Your task to perform on an android device: allow cookies in the chrome app Image 0: 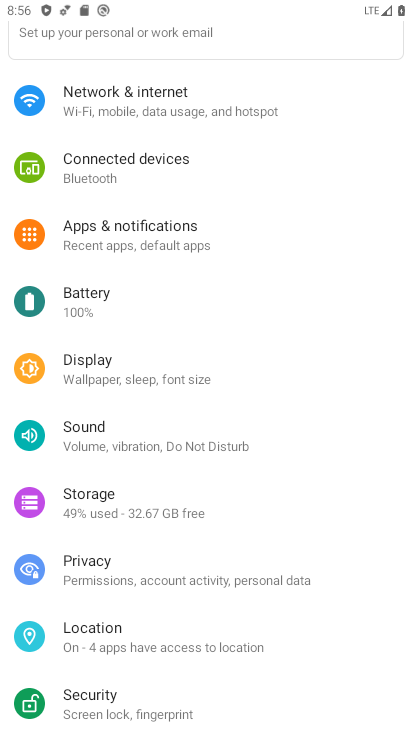
Step 0: press home button
Your task to perform on an android device: allow cookies in the chrome app Image 1: 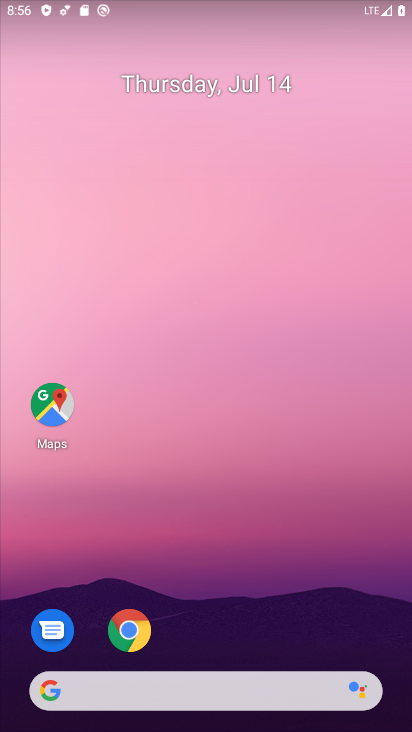
Step 1: click (133, 628)
Your task to perform on an android device: allow cookies in the chrome app Image 2: 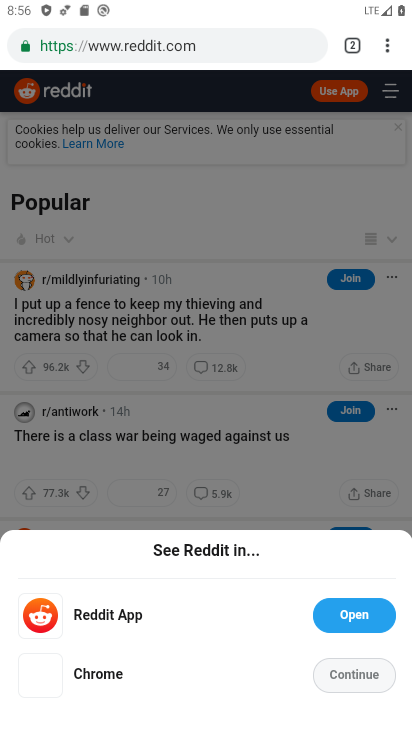
Step 2: click (380, 45)
Your task to perform on an android device: allow cookies in the chrome app Image 3: 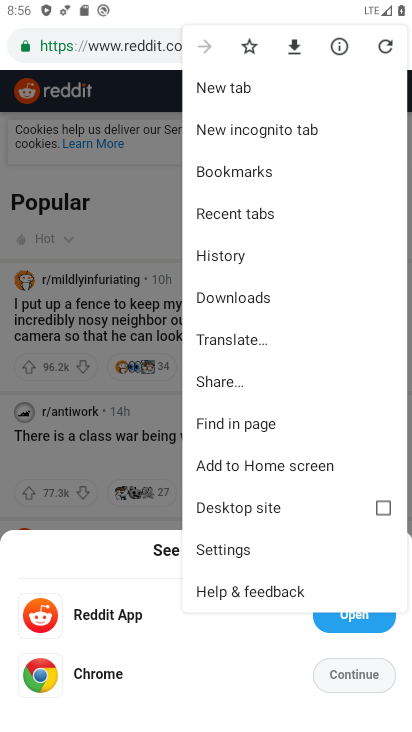
Step 3: click (237, 544)
Your task to perform on an android device: allow cookies in the chrome app Image 4: 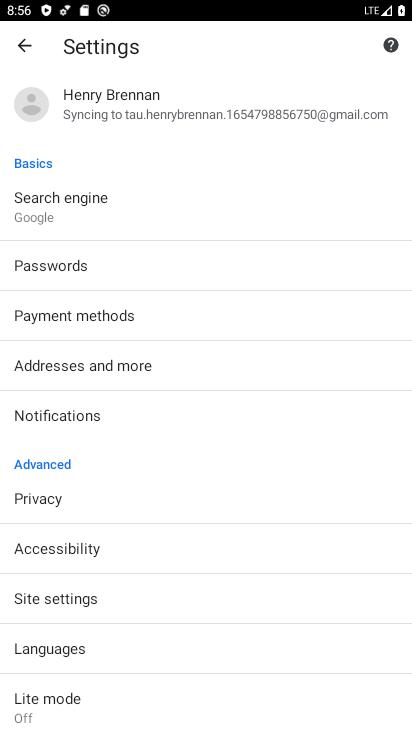
Step 4: click (67, 607)
Your task to perform on an android device: allow cookies in the chrome app Image 5: 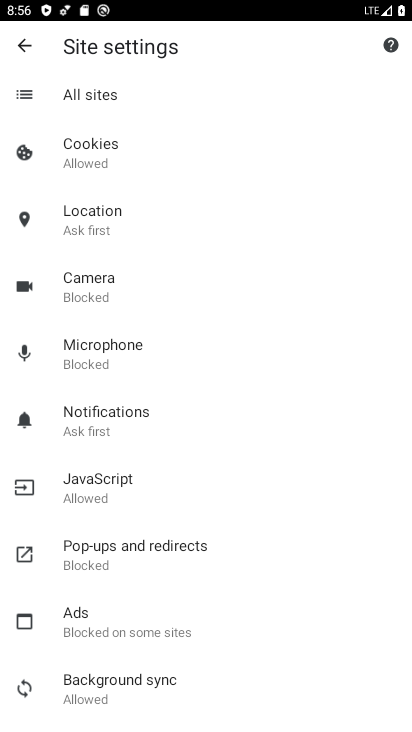
Step 5: click (126, 147)
Your task to perform on an android device: allow cookies in the chrome app Image 6: 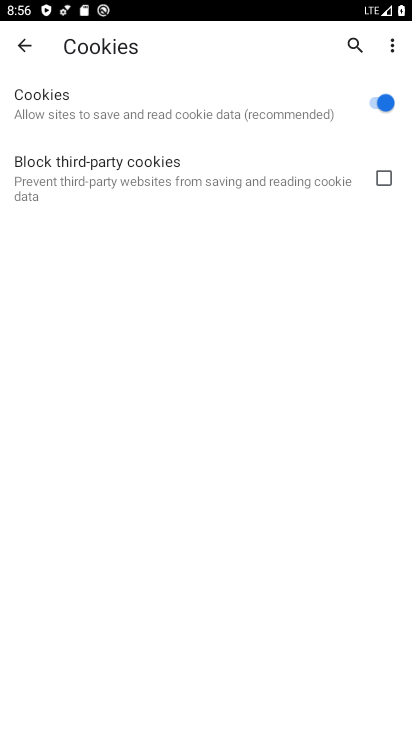
Step 6: task complete